Your task to perform on an android device: turn on airplane mode Image 0: 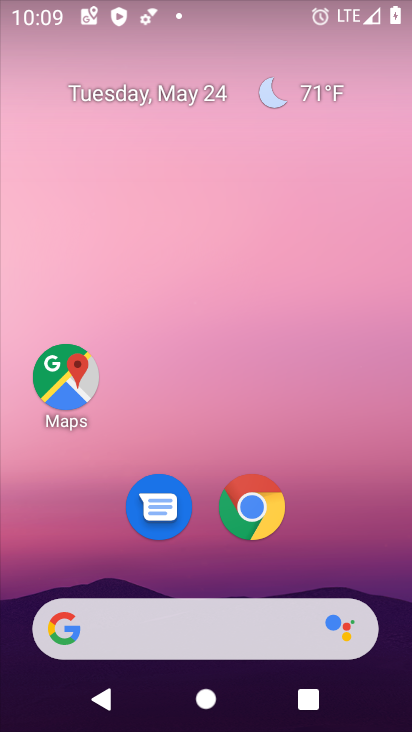
Step 0: drag from (227, 716) to (208, 114)
Your task to perform on an android device: turn on airplane mode Image 1: 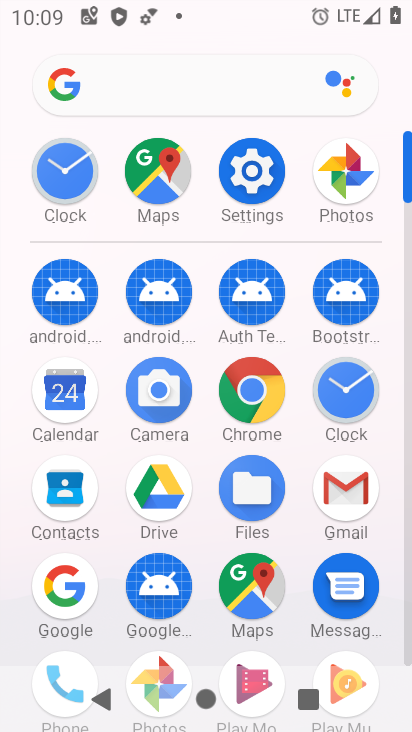
Step 1: click (252, 172)
Your task to perform on an android device: turn on airplane mode Image 2: 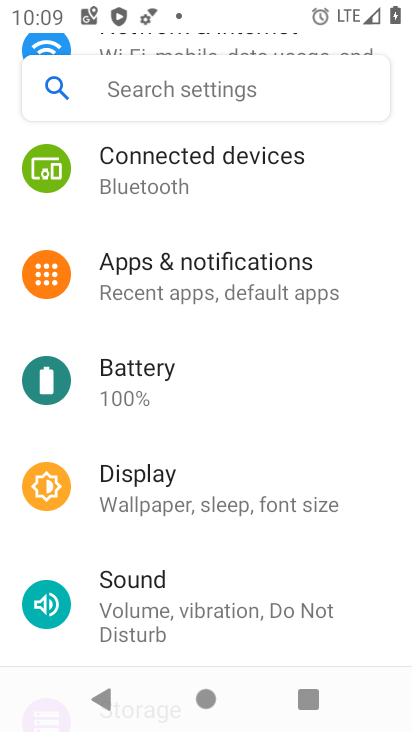
Step 2: drag from (218, 166) to (254, 535)
Your task to perform on an android device: turn on airplane mode Image 3: 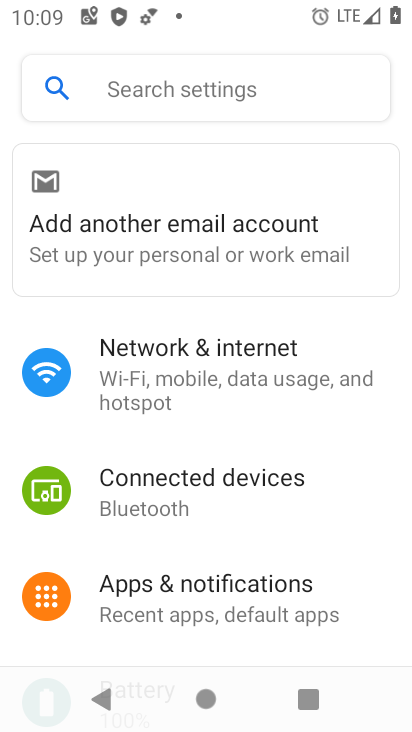
Step 3: click (176, 355)
Your task to perform on an android device: turn on airplane mode Image 4: 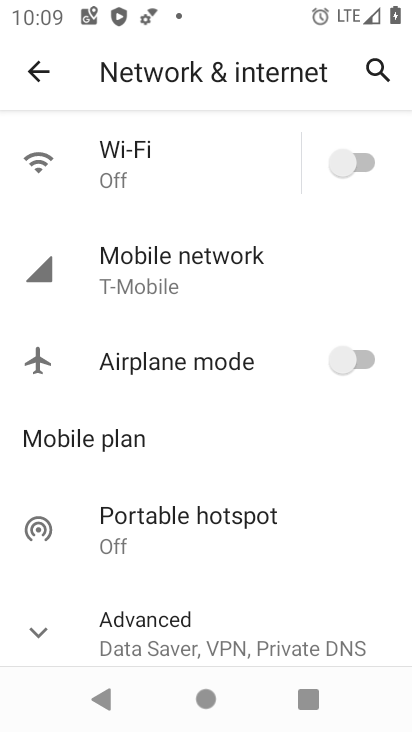
Step 4: click (358, 361)
Your task to perform on an android device: turn on airplane mode Image 5: 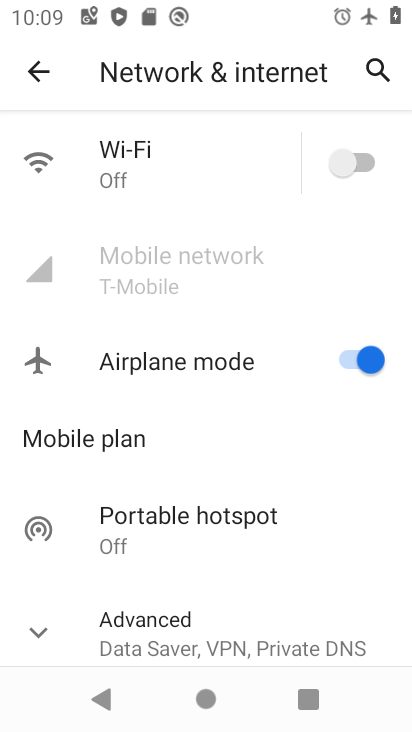
Step 5: task complete